Your task to perform on an android device: Open Youtube and go to "Your channel" Image 0: 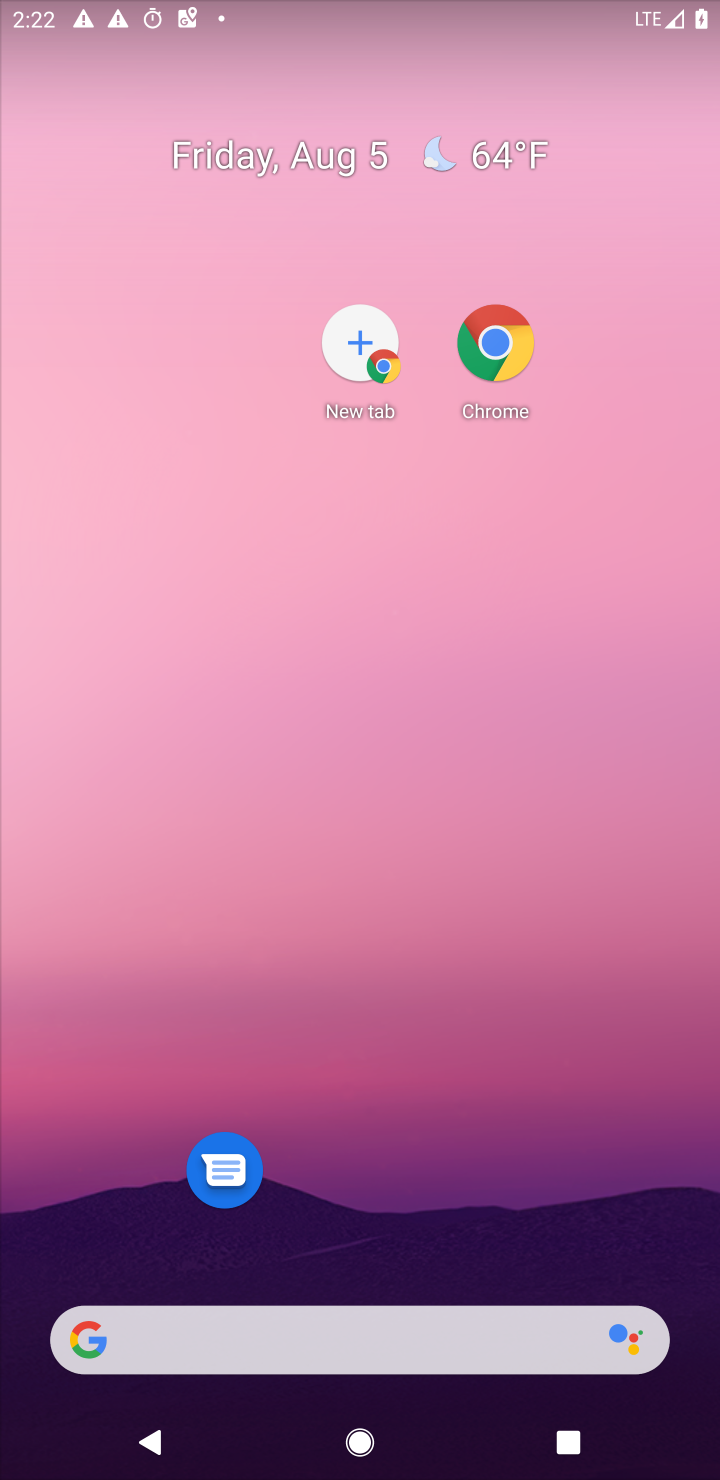
Step 0: drag from (400, 1118) to (459, 92)
Your task to perform on an android device: Open Youtube and go to "Your channel" Image 1: 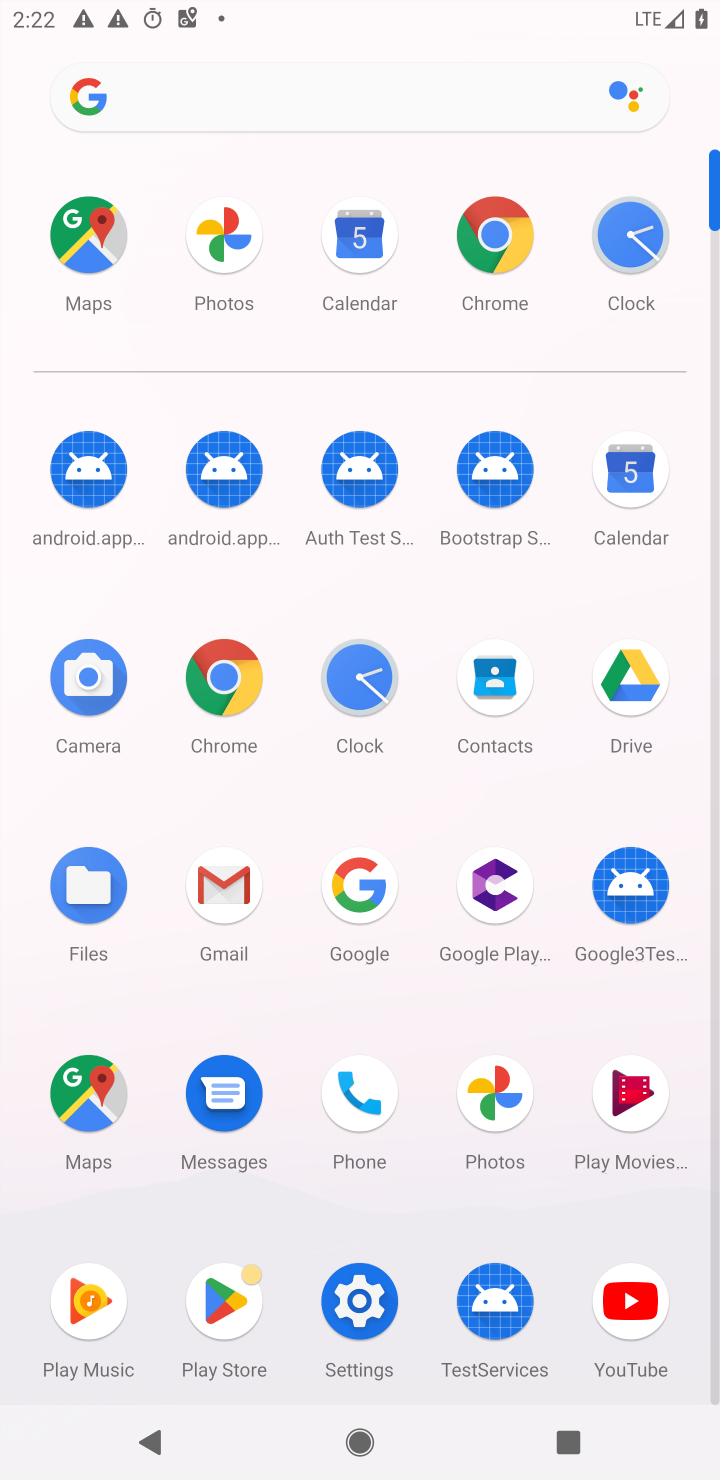
Step 1: click (634, 1304)
Your task to perform on an android device: Open Youtube and go to "Your channel" Image 2: 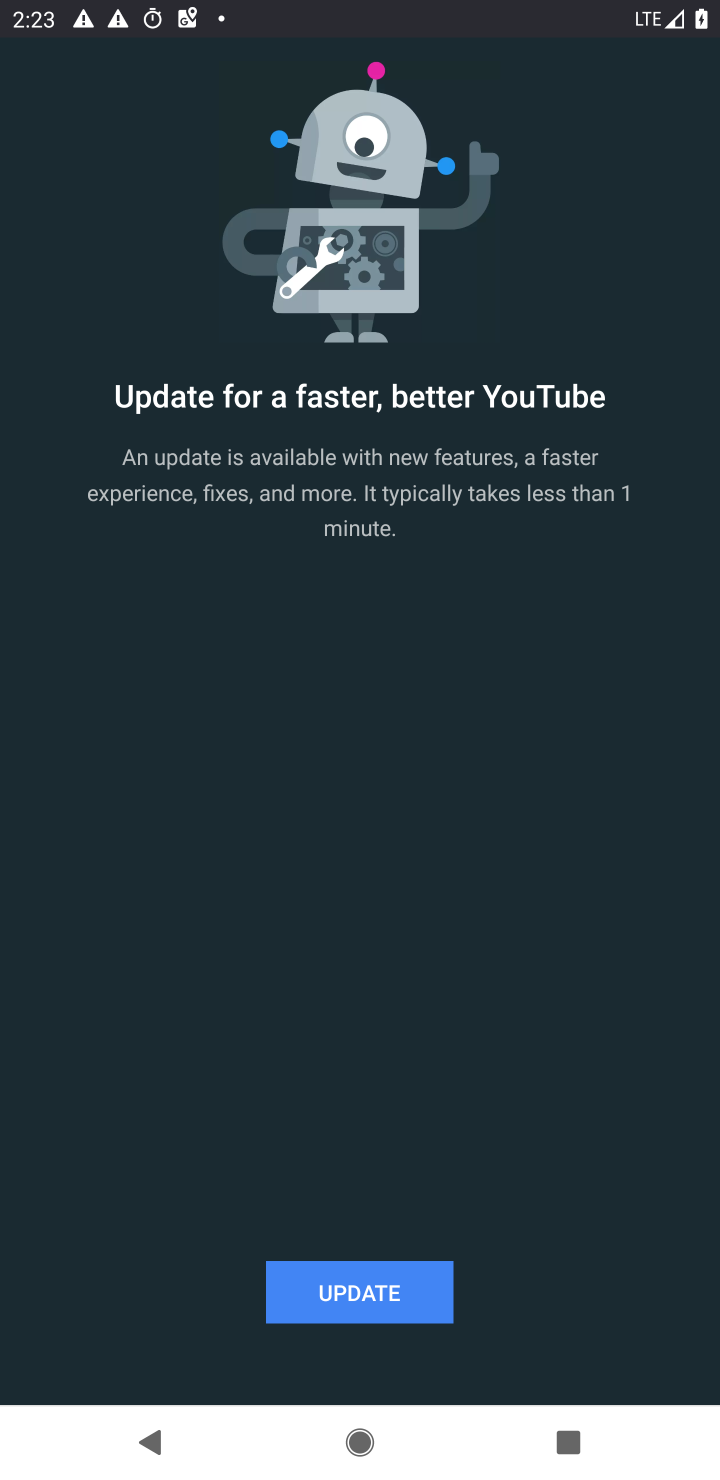
Step 2: click (366, 1302)
Your task to perform on an android device: Open Youtube and go to "Your channel" Image 3: 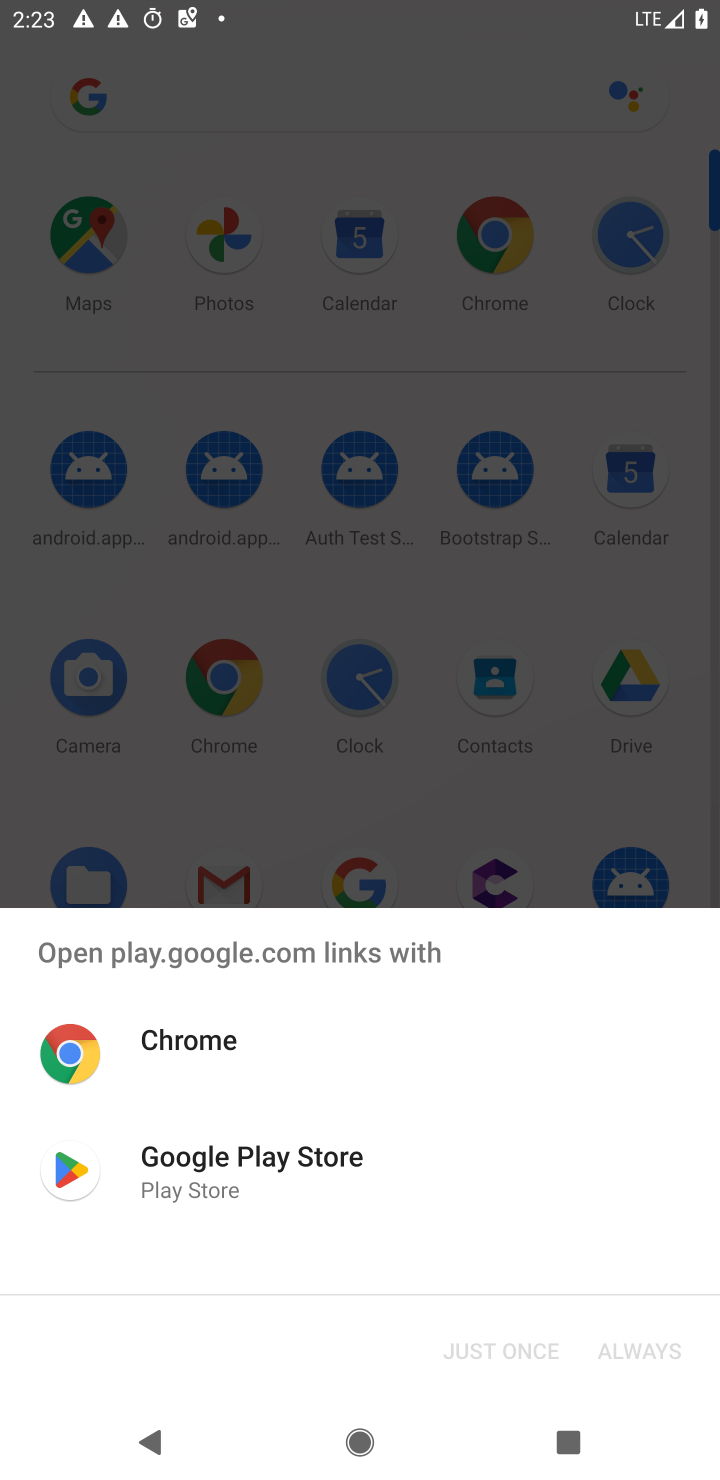
Step 3: click (363, 1180)
Your task to perform on an android device: Open Youtube and go to "Your channel" Image 4: 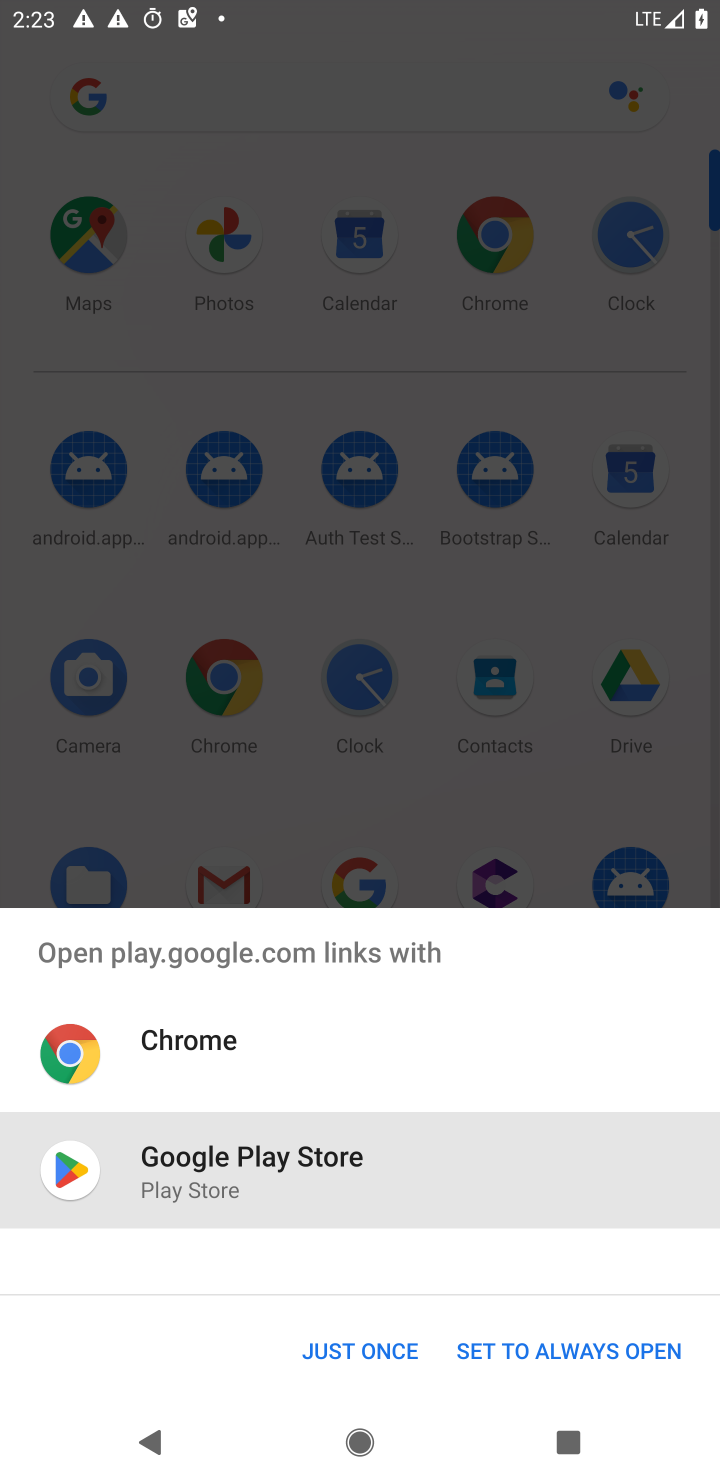
Step 4: click (351, 1353)
Your task to perform on an android device: Open Youtube and go to "Your channel" Image 5: 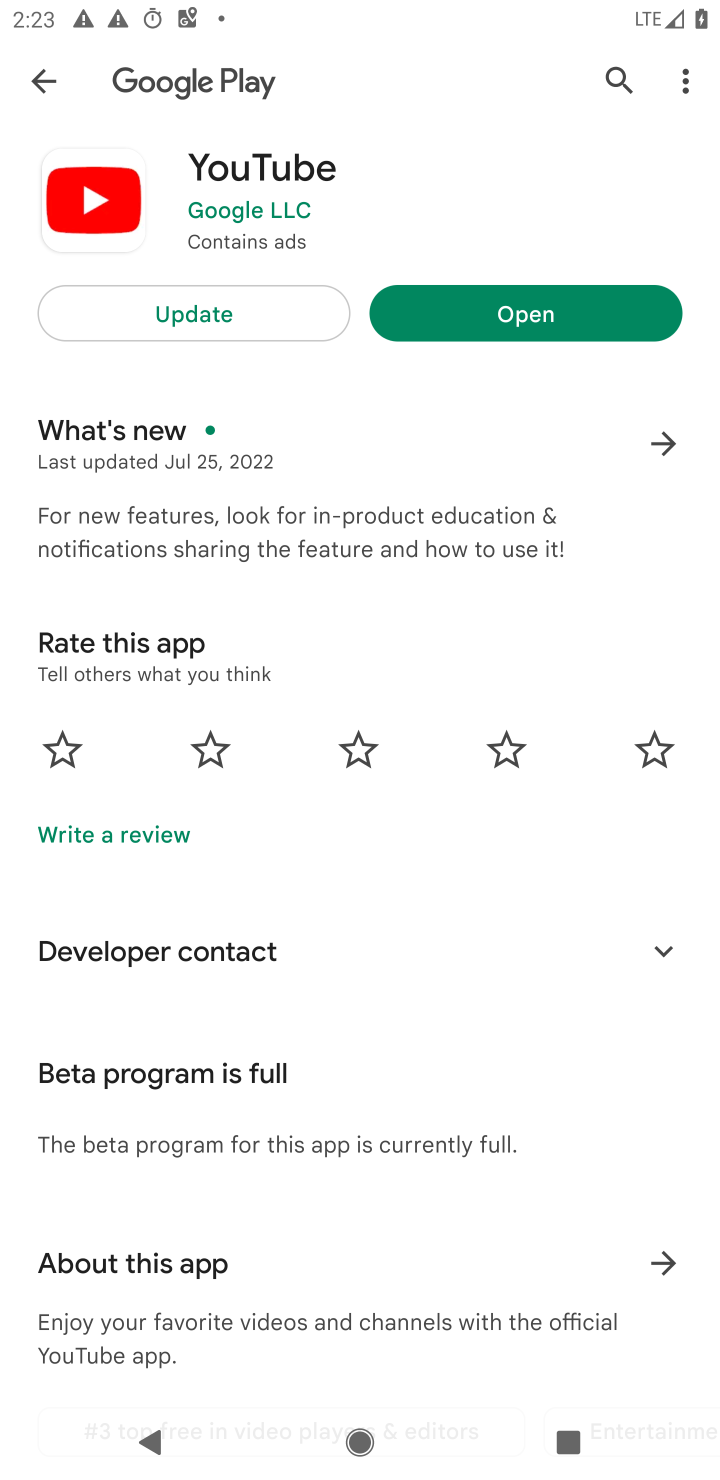
Step 5: click (223, 303)
Your task to perform on an android device: Open Youtube and go to "Your channel" Image 6: 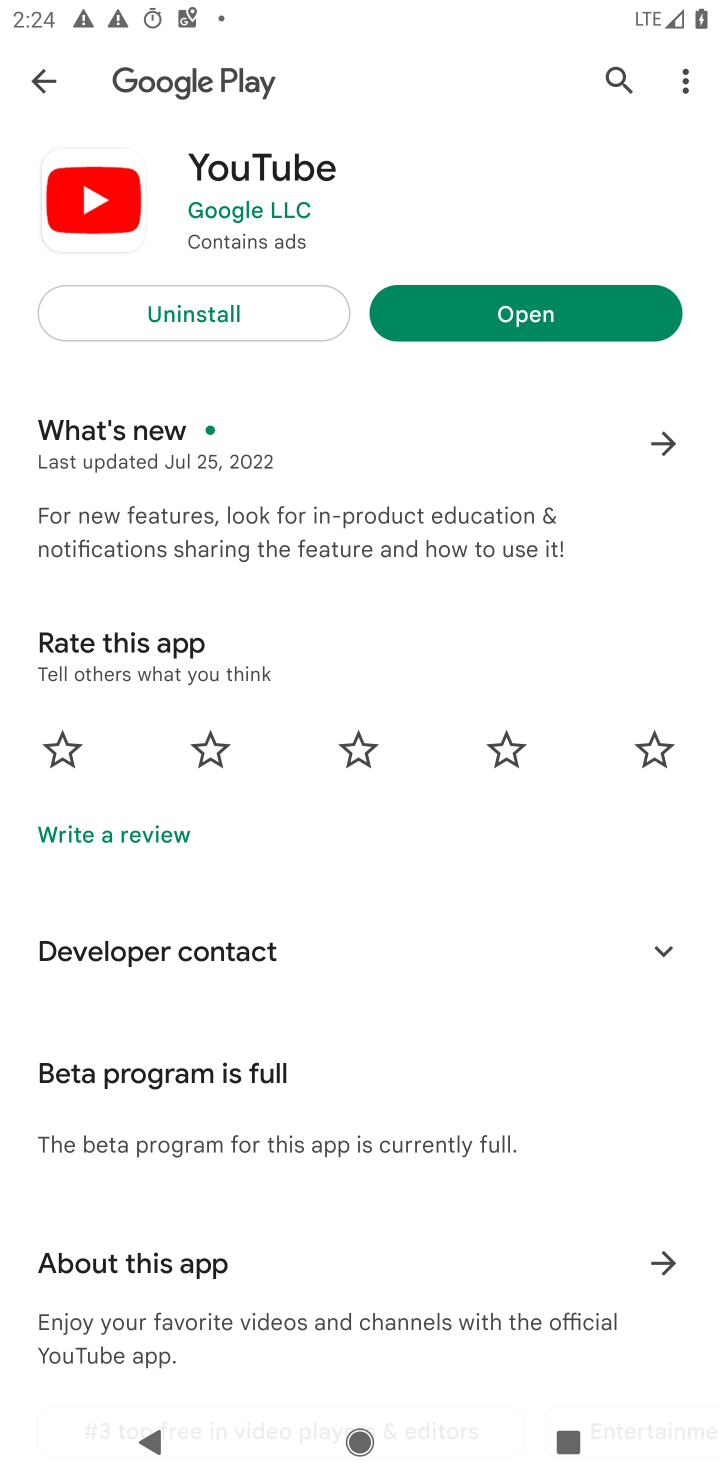
Step 6: click (496, 312)
Your task to perform on an android device: Open Youtube and go to "Your channel" Image 7: 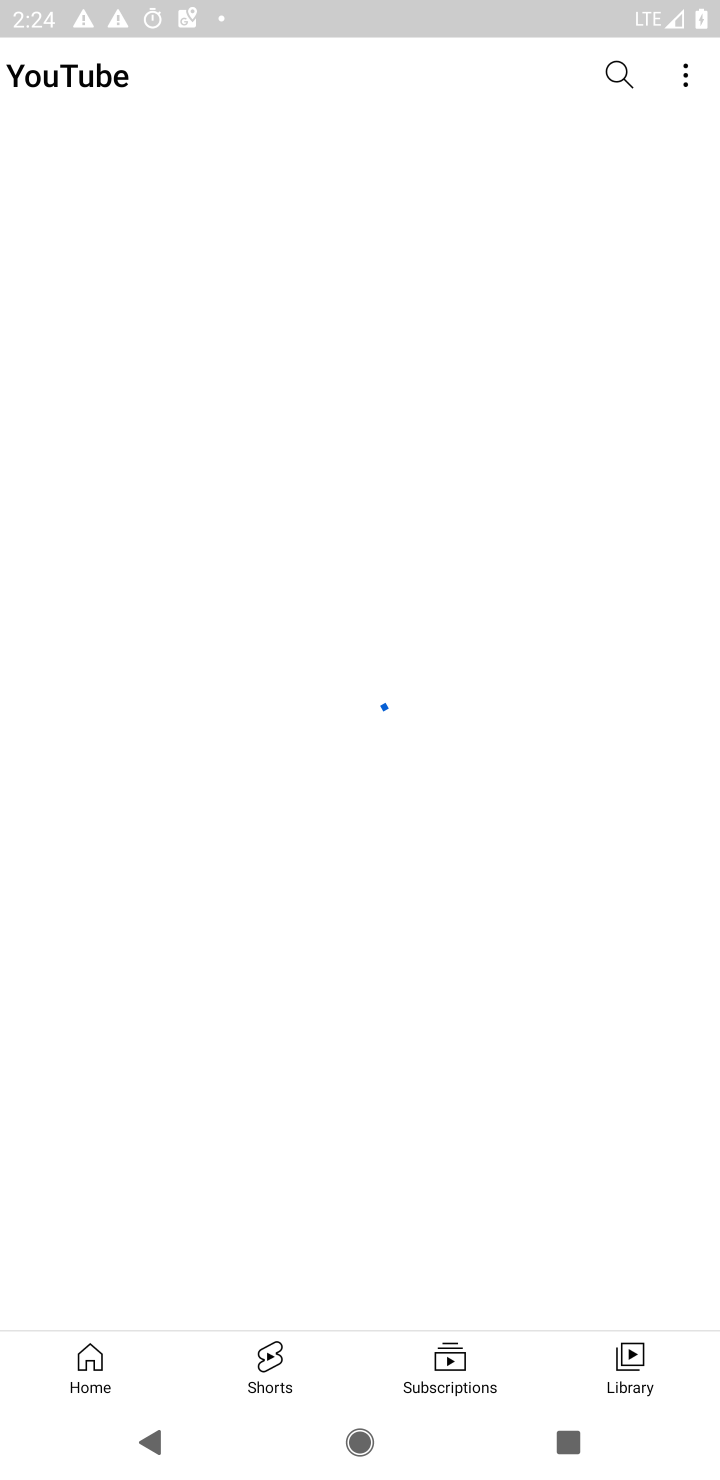
Step 7: click (628, 1355)
Your task to perform on an android device: Open Youtube and go to "Your channel" Image 8: 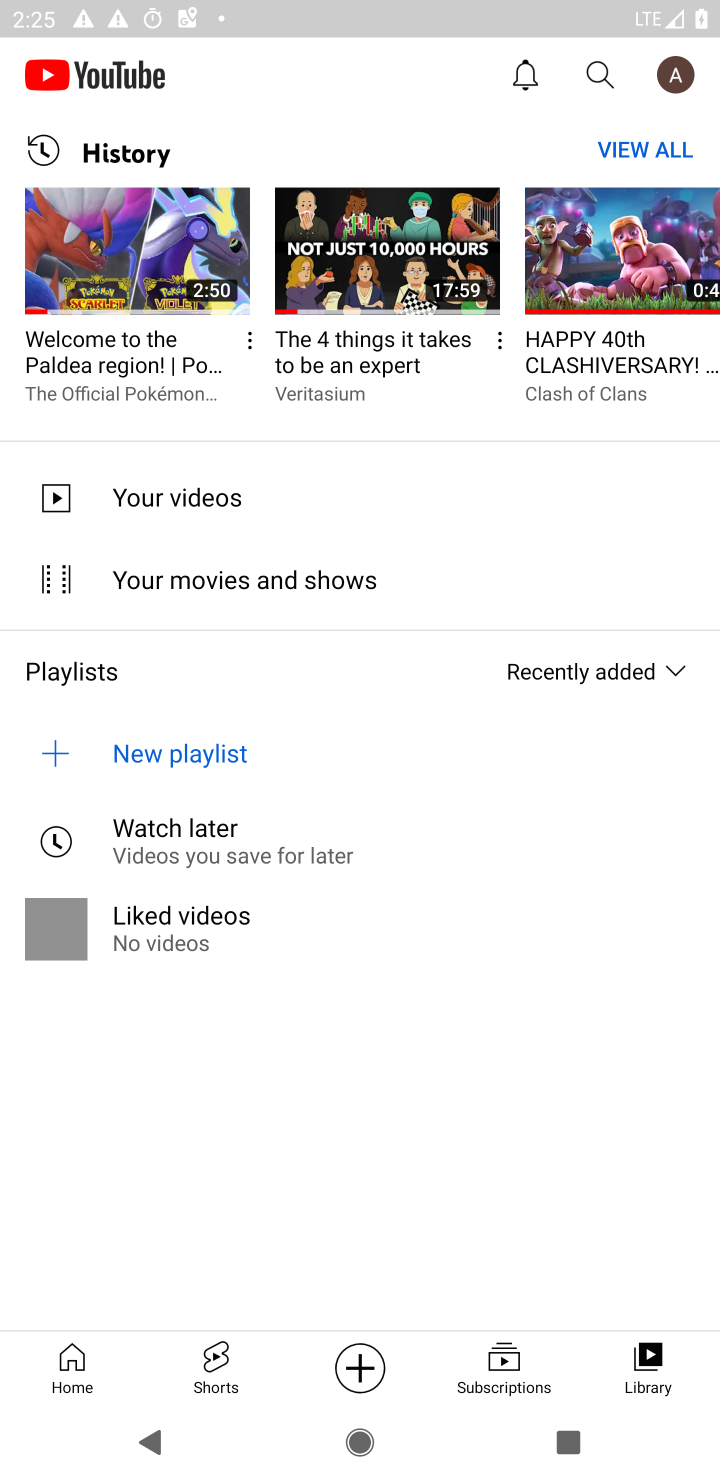
Step 8: click (664, 82)
Your task to perform on an android device: Open Youtube and go to "Your channel" Image 9: 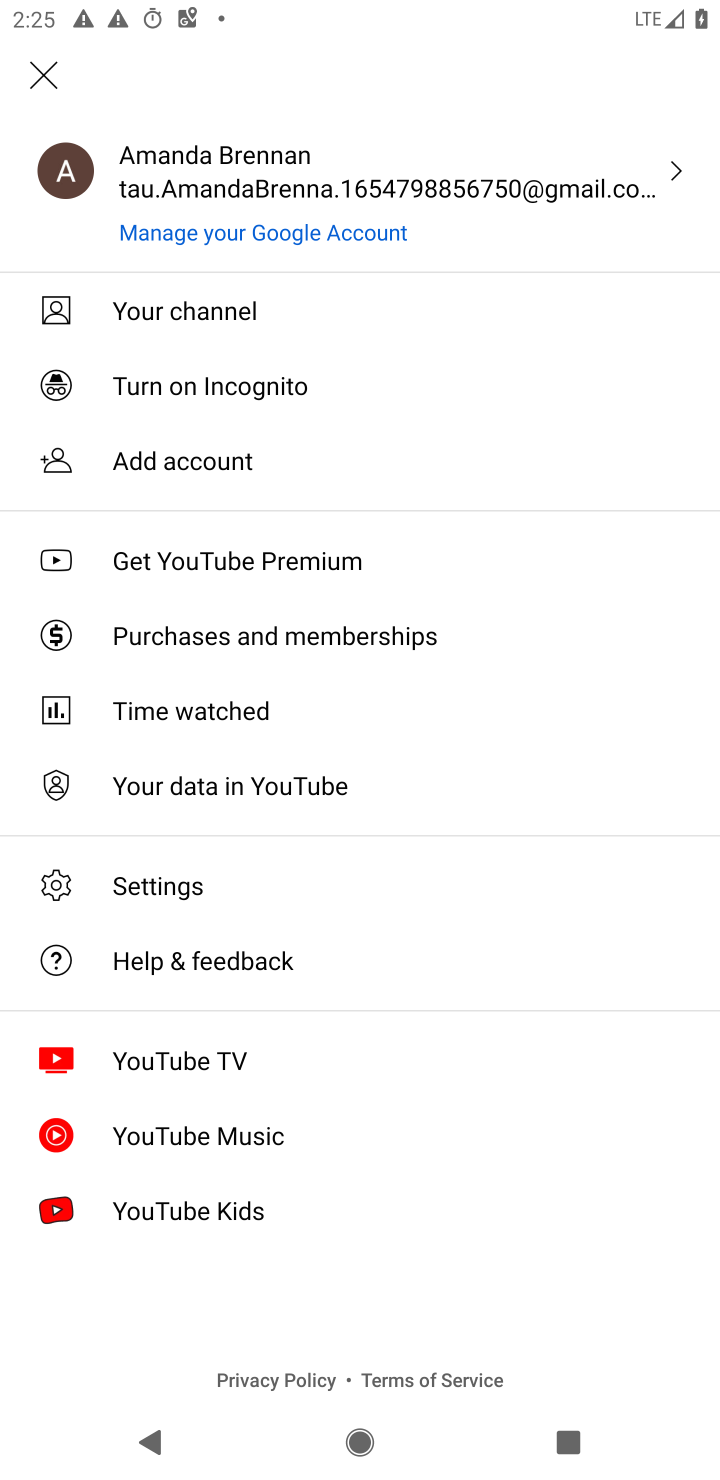
Step 9: click (261, 324)
Your task to perform on an android device: Open Youtube and go to "Your channel" Image 10: 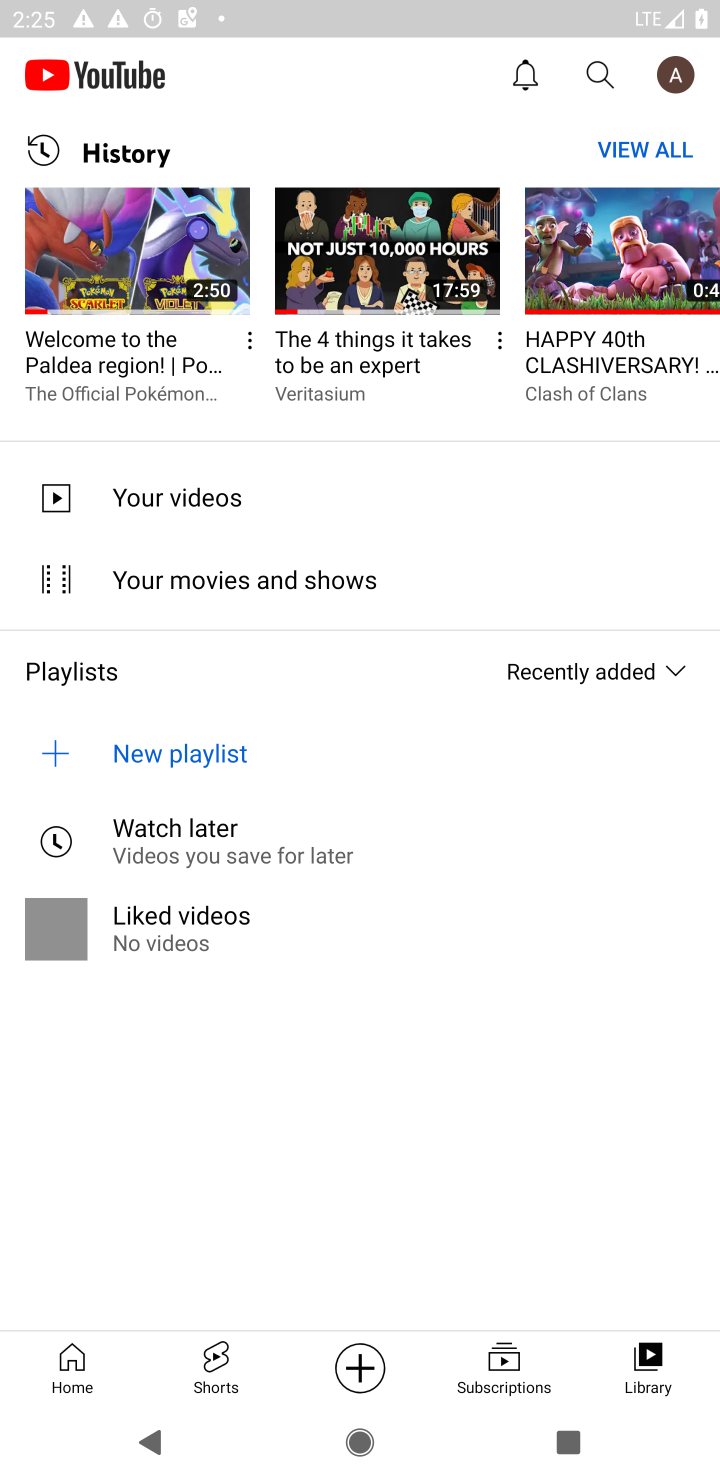
Step 10: task complete